Your task to perform on an android device: Open the calendar and show me this week's events? Image 0: 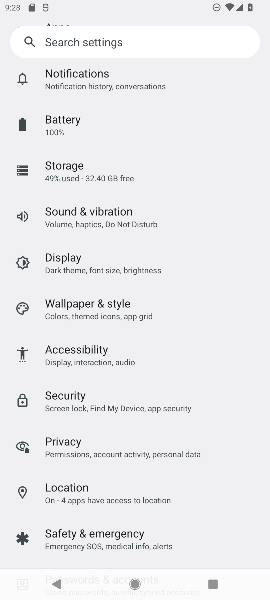
Step 0: press home button
Your task to perform on an android device: Open the calendar and show me this week's events? Image 1: 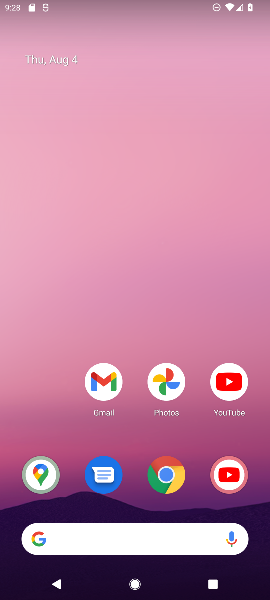
Step 1: drag from (124, 488) to (158, 232)
Your task to perform on an android device: Open the calendar and show me this week's events? Image 2: 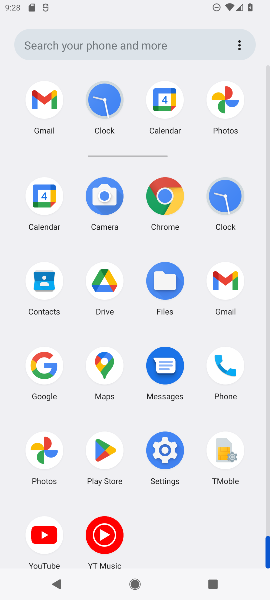
Step 2: click (38, 190)
Your task to perform on an android device: Open the calendar and show me this week's events? Image 3: 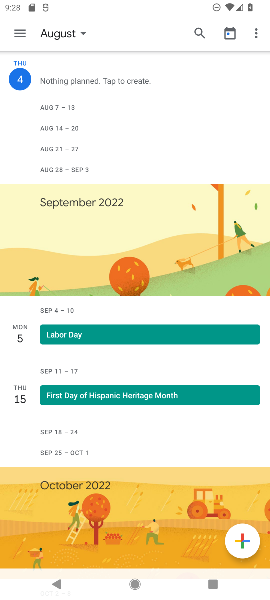
Step 3: click (75, 31)
Your task to perform on an android device: Open the calendar and show me this week's events? Image 4: 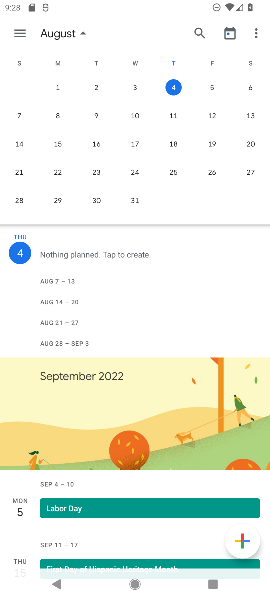
Step 4: click (224, 32)
Your task to perform on an android device: Open the calendar and show me this week's events? Image 5: 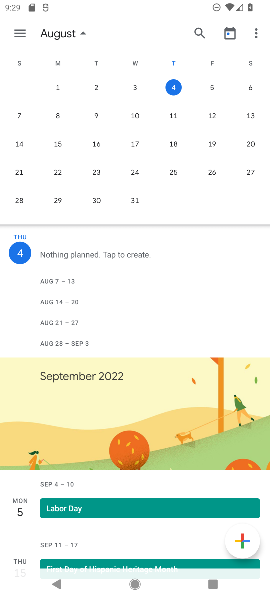
Step 5: click (211, 89)
Your task to perform on an android device: Open the calendar and show me this week's events? Image 6: 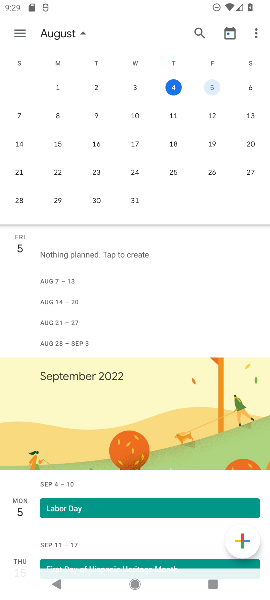
Step 6: task complete